Your task to perform on an android device: change notification settings in the gmail app Image 0: 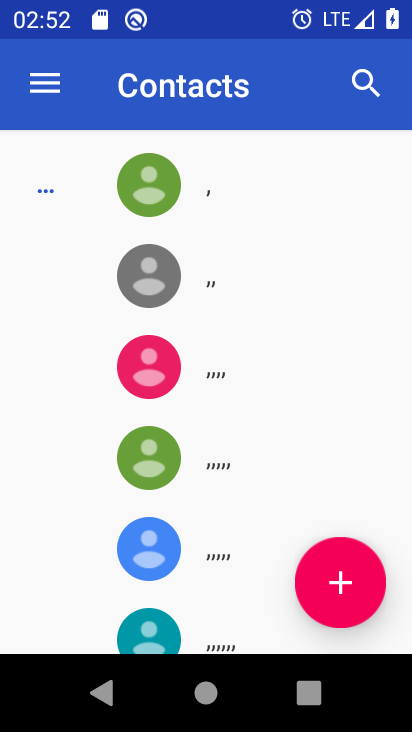
Step 0: press home button
Your task to perform on an android device: change notification settings in the gmail app Image 1: 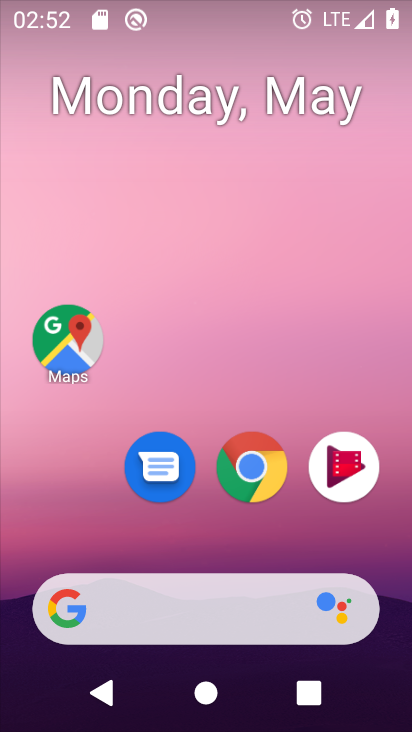
Step 1: drag from (222, 523) to (245, 152)
Your task to perform on an android device: change notification settings in the gmail app Image 2: 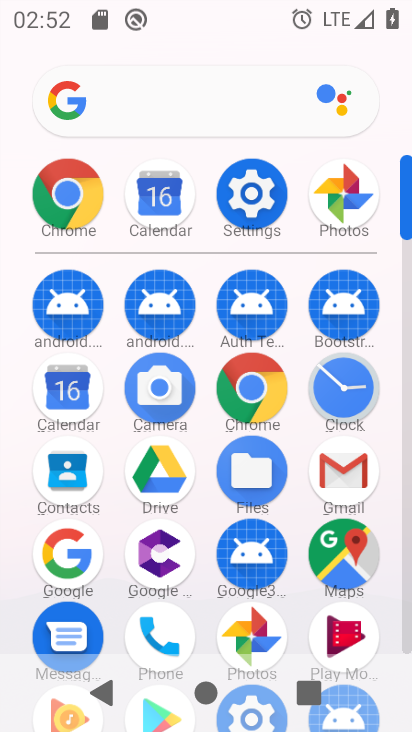
Step 2: click (335, 494)
Your task to perform on an android device: change notification settings in the gmail app Image 3: 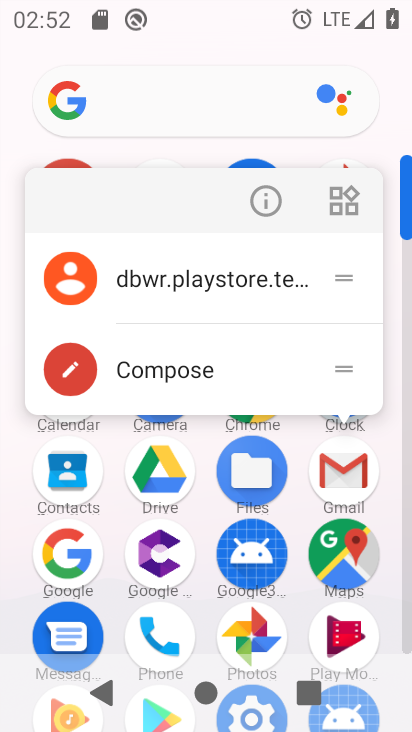
Step 3: click (347, 474)
Your task to perform on an android device: change notification settings in the gmail app Image 4: 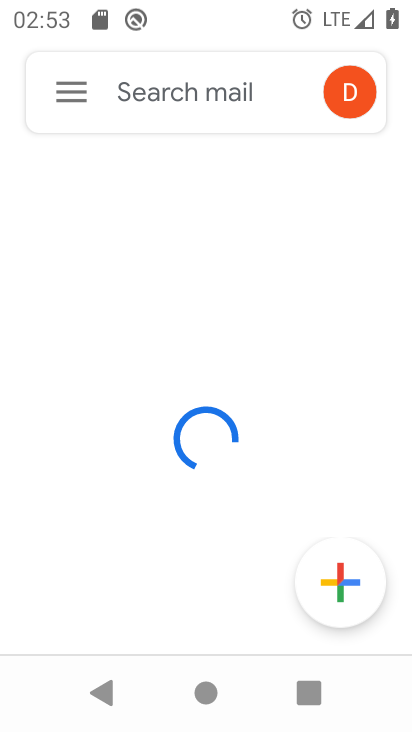
Step 4: click (61, 91)
Your task to perform on an android device: change notification settings in the gmail app Image 5: 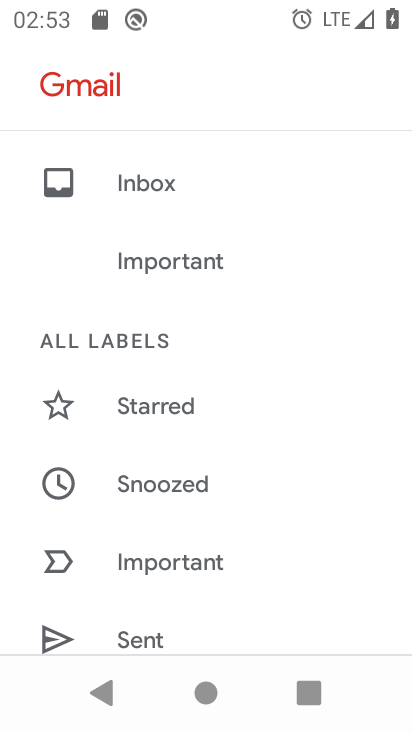
Step 5: drag from (202, 496) to (238, 268)
Your task to perform on an android device: change notification settings in the gmail app Image 6: 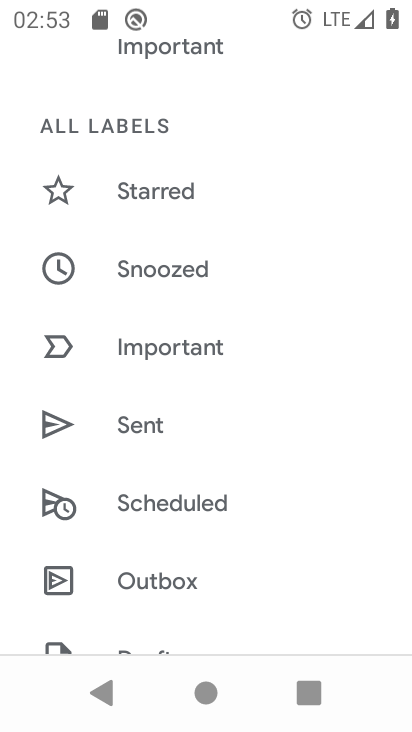
Step 6: drag from (178, 648) to (266, 235)
Your task to perform on an android device: change notification settings in the gmail app Image 7: 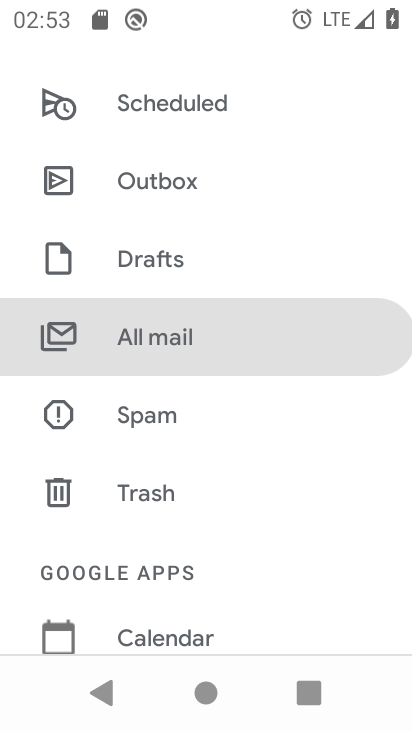
Step 7: drag from (160, 611) to (257, 310)
Your task to perform on an android device: change notification settings in the gmail app Image 8: 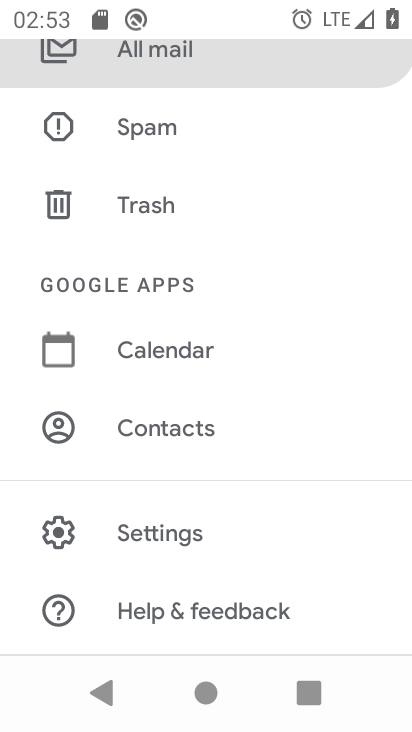
Step 8: click (154, 511)
Your task to perform on an android device: change notification settings in the gmail app Image 9: 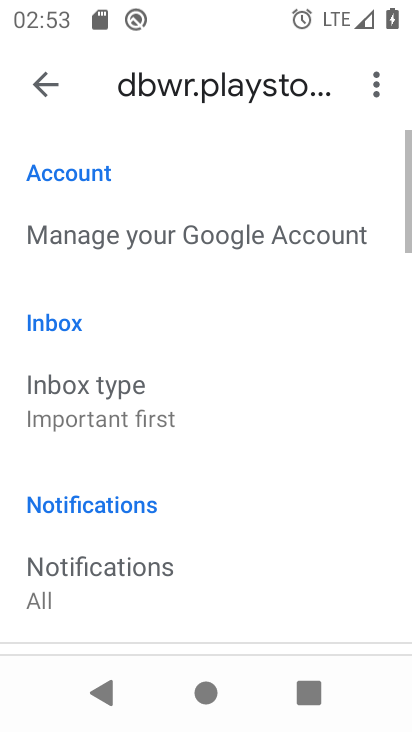
Step 9: drag from (160, 552) to (227, 263)
Your task to perform on an android device: change notification settings in the gmail app Image 10: 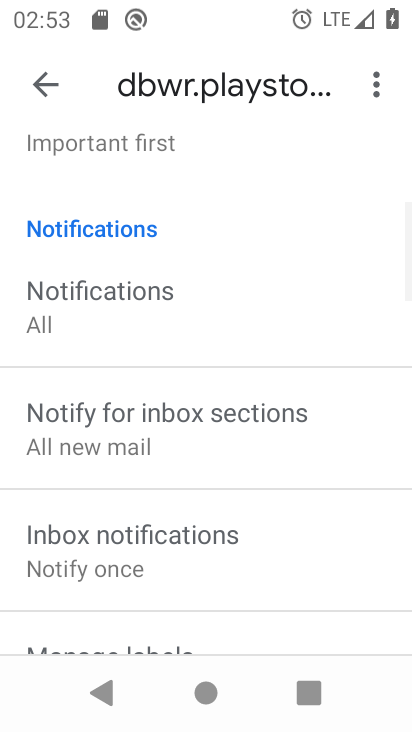
Step 10: click (167, 299)
Your task to perform on an android device: change notification settings in the gmail app Image 11: 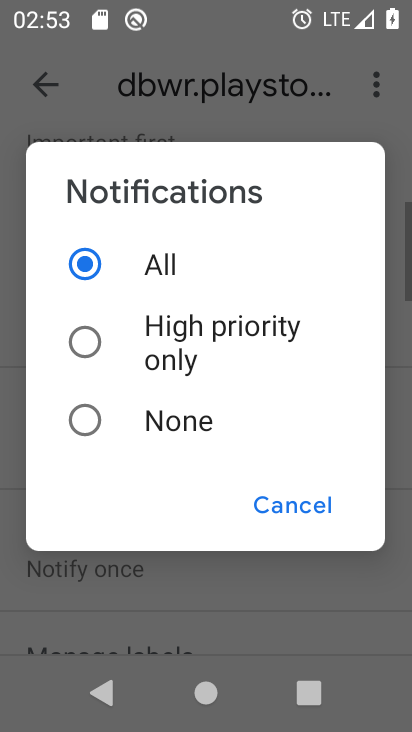
Step 11: click (135, 419)
Your task to perform on an android device: change notification settings in the gmail app Image 12: 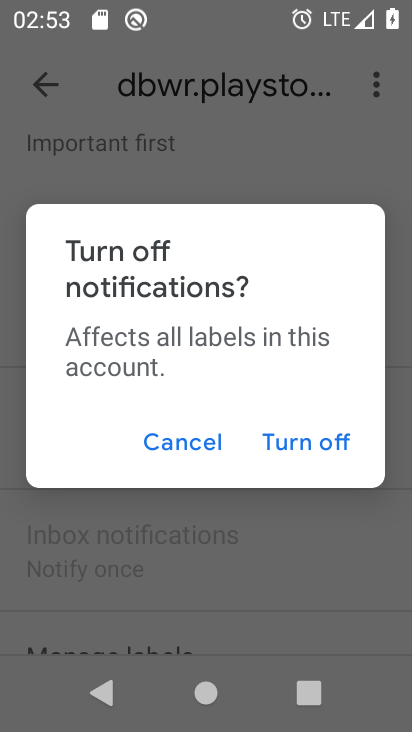
Step 12: click (270, 440)
Your task to perform on an android device: change notification settings in the gmail app Image 13: 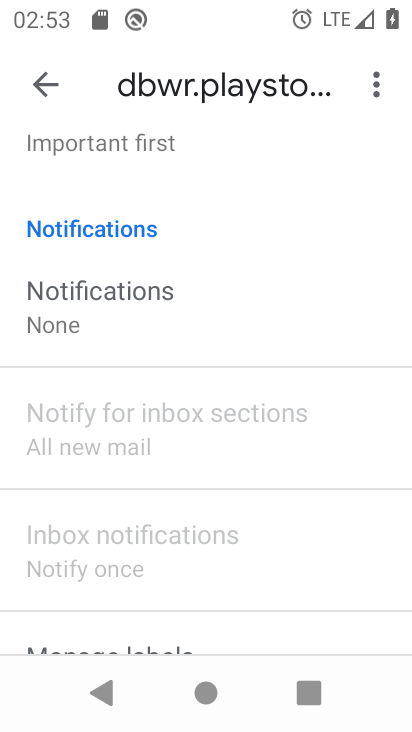
Step 13: task complete